Your task to perform on an android device: open app "Nova Launcher" Image 0: 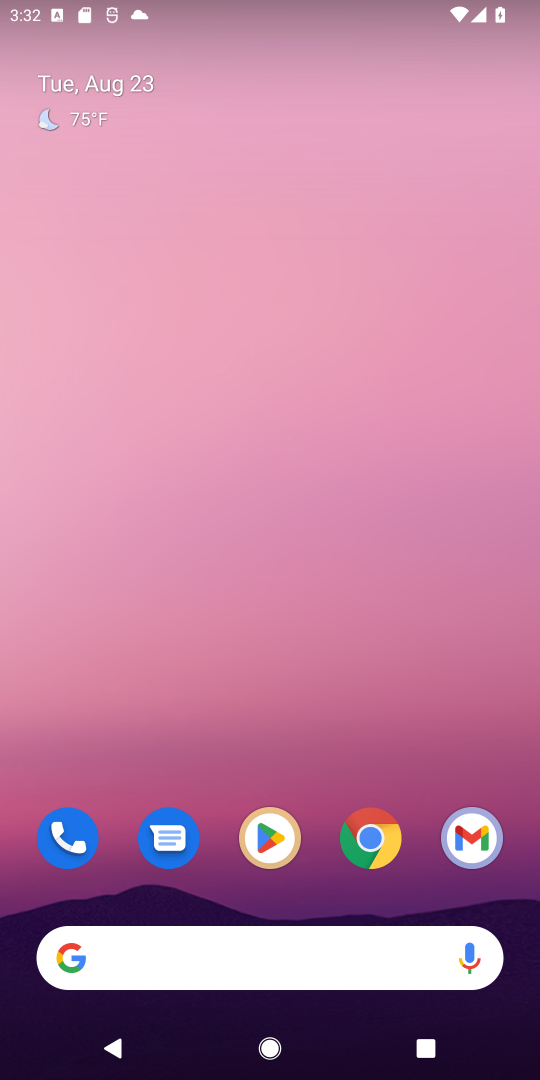
Step 0: click (274, 855)
Your task to perform on an android device: open app "Nova Launcher" Image 1: 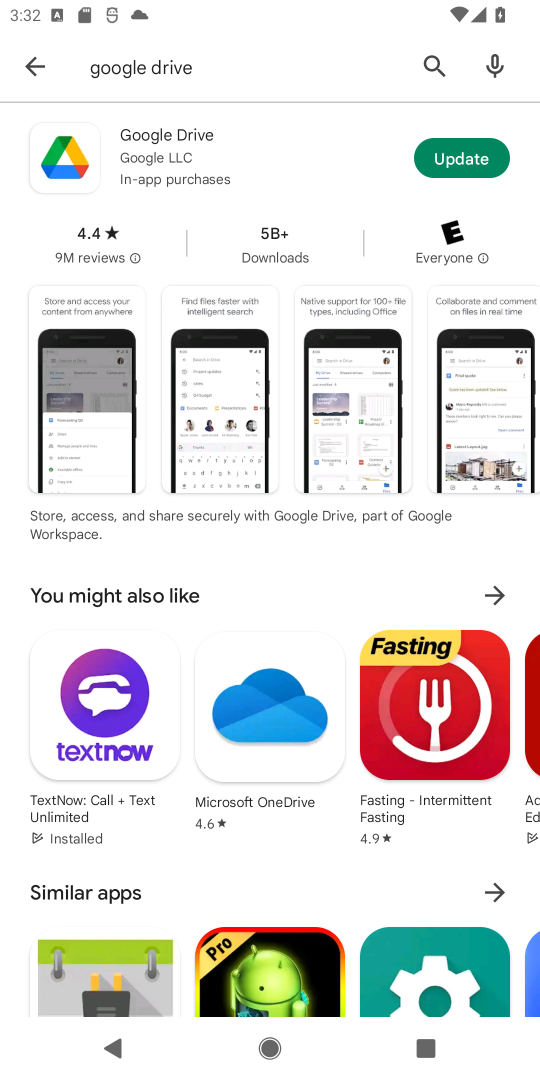
Step 1: click (33, 70)
Your task to perform on an android device: open app "Nova Launcher" Image 2: 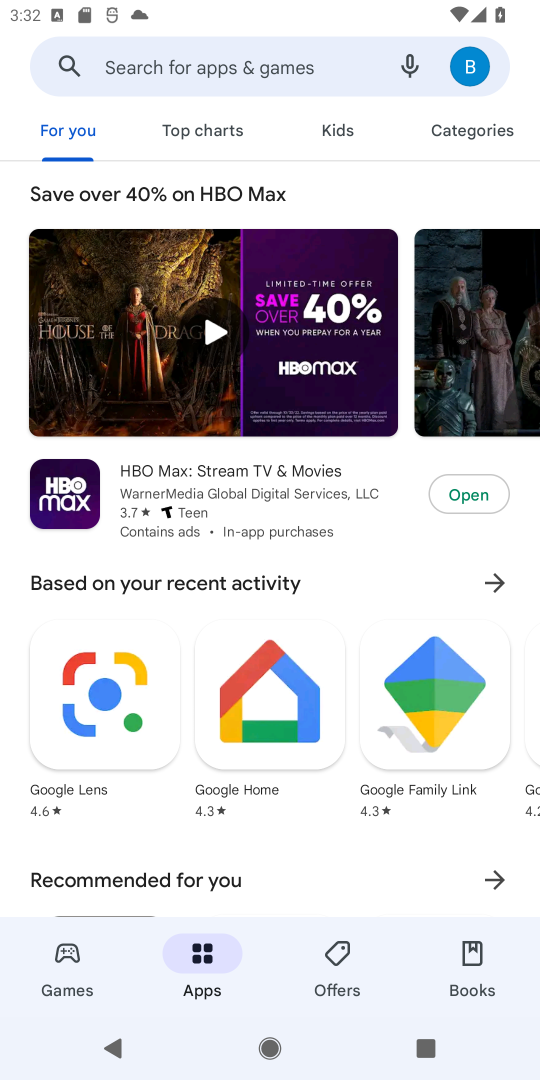
Step 2: click (183, 70)
Your task to perform on an android device: open app "Nova Launcher" Image 3: 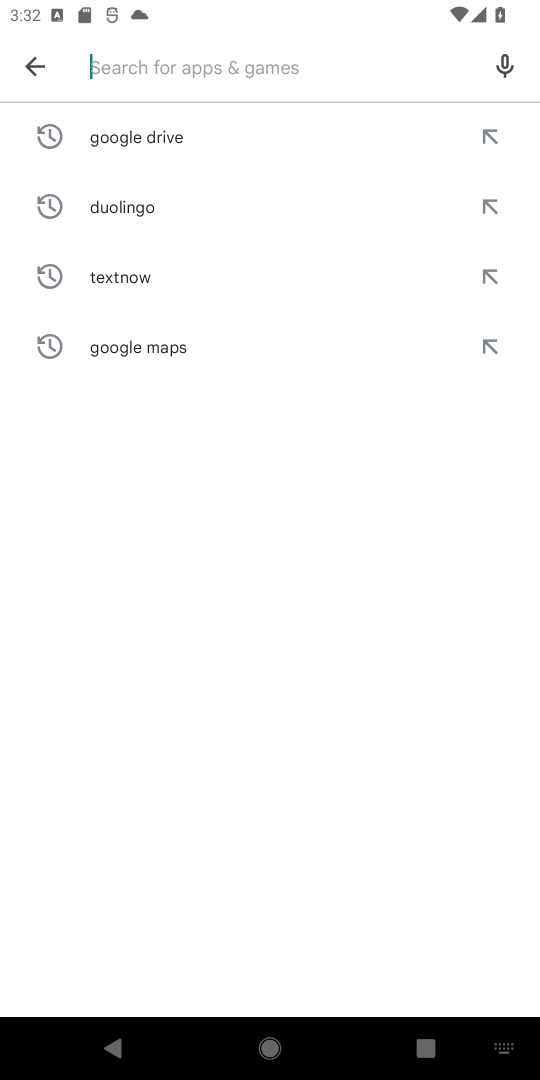
Step 3: type "Nova Launcher"
Your task to perform on an android device: open app "Nova Launcher" Image 4: 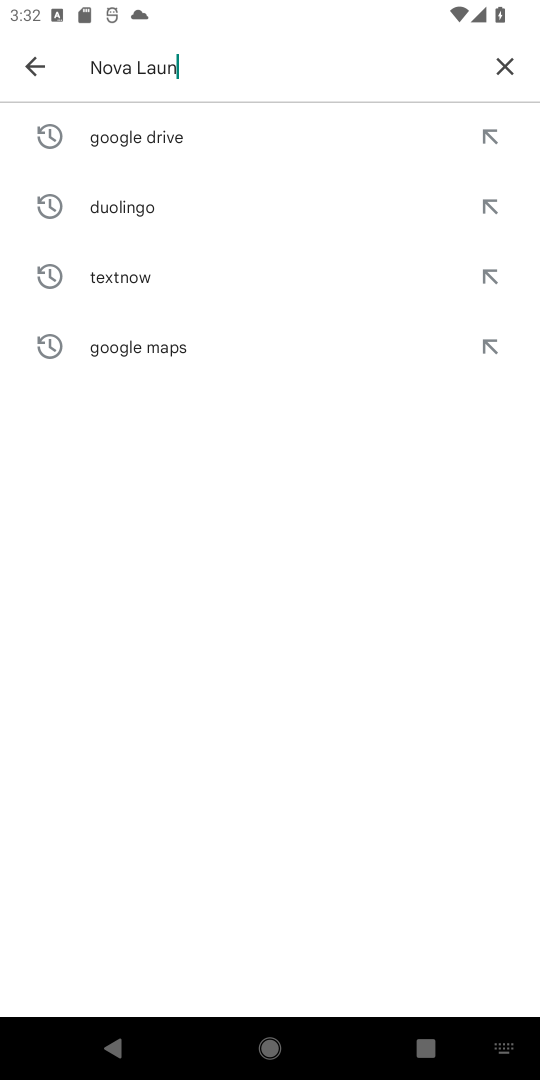
Step 4: type ""
Your task to perform on an android device: open app "Nova Launcher" Image 5: 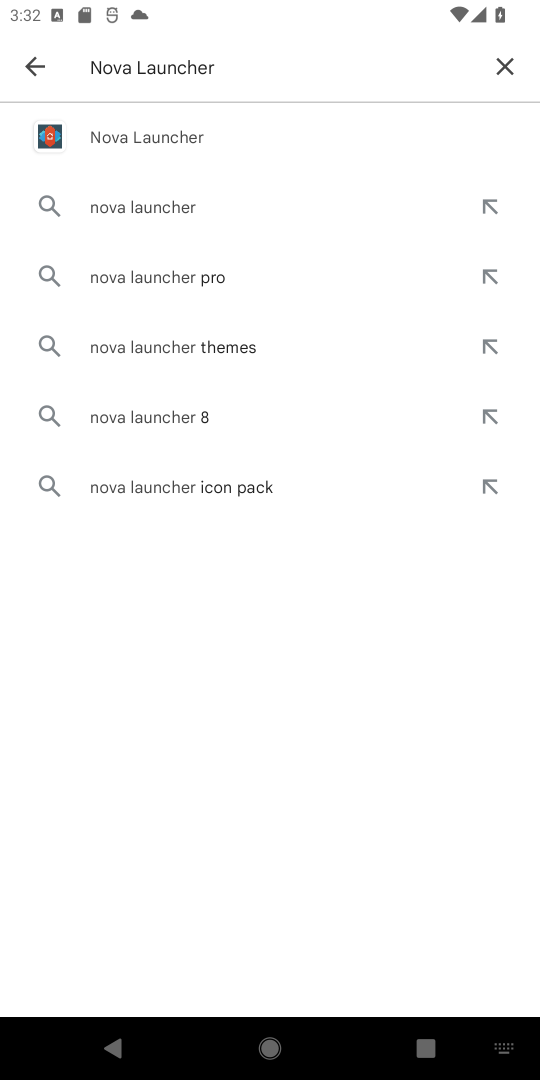
Step 5: click (152, 150)
Your task to perform on an android device: open app "Nova Launcher" Image 6: 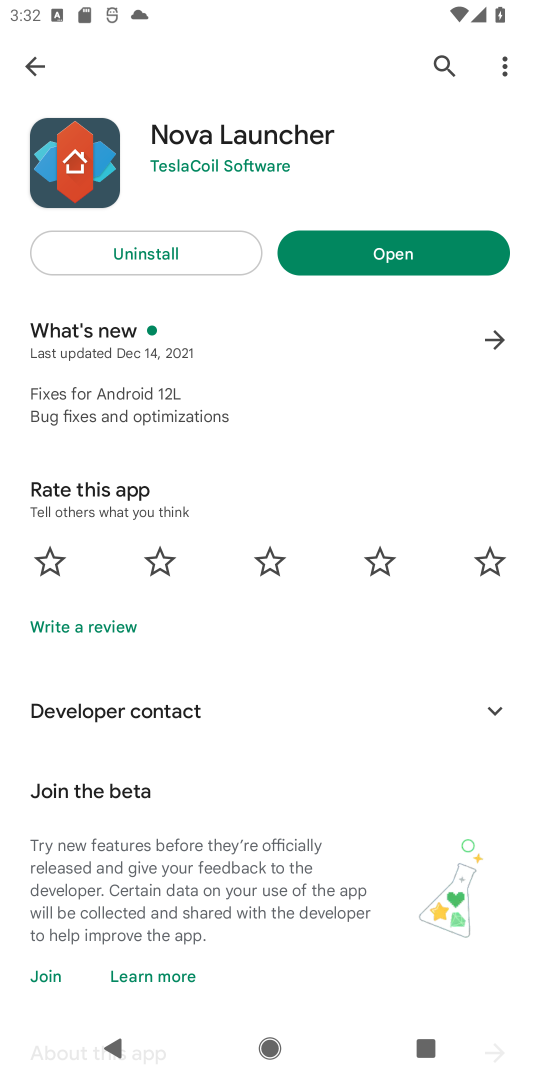
Step 6: click (323, 259)
Your task to perform on an android device: open app "Nova Launcher" Image 7: 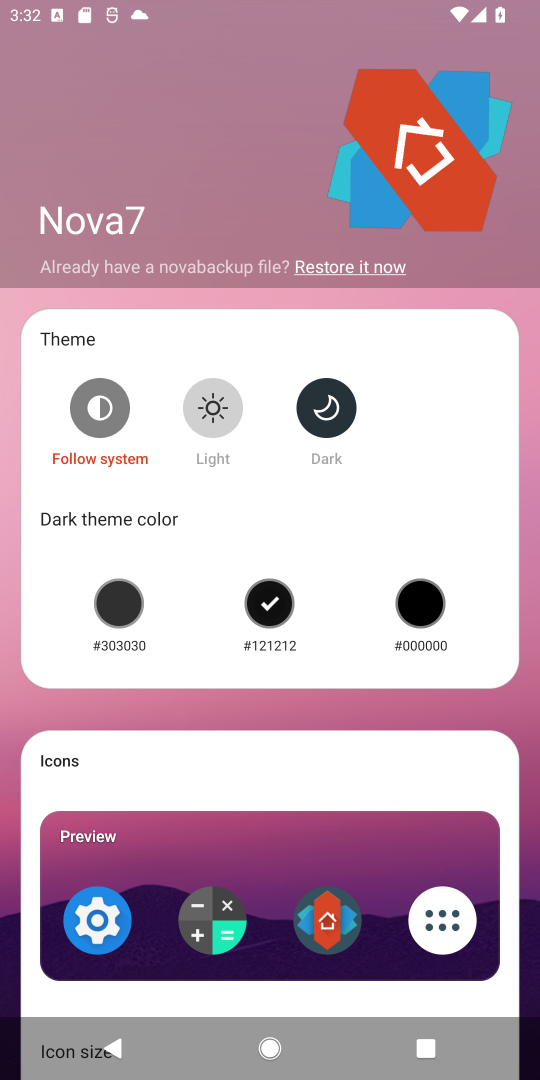
Step 7: press home button
Your task to perform on an android device: open app "Nova Launcher" Image 8: 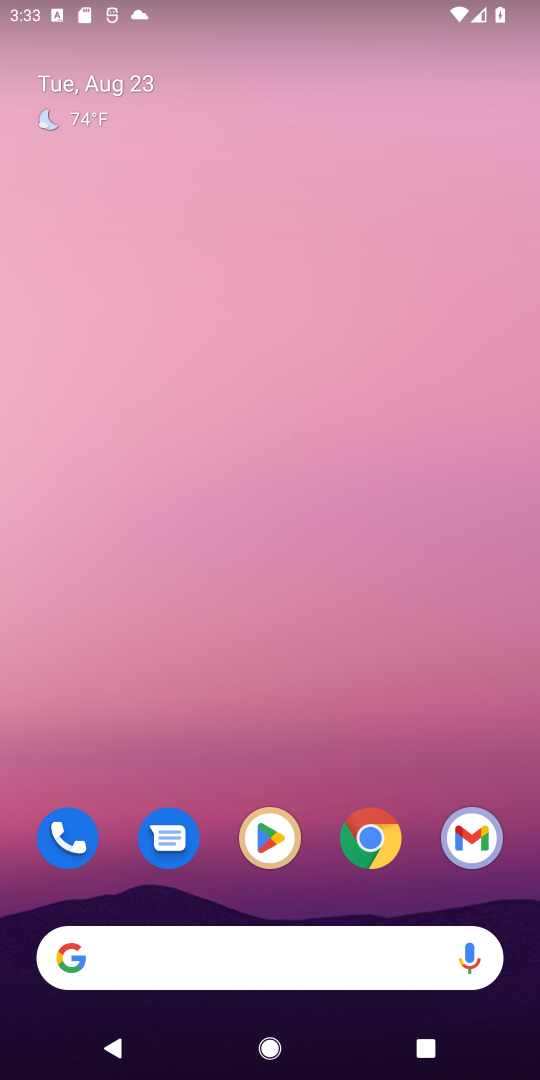
Step 8: click (266, 833)
Your task to perform on an android device: open app "Nova Launcher" Image 9: 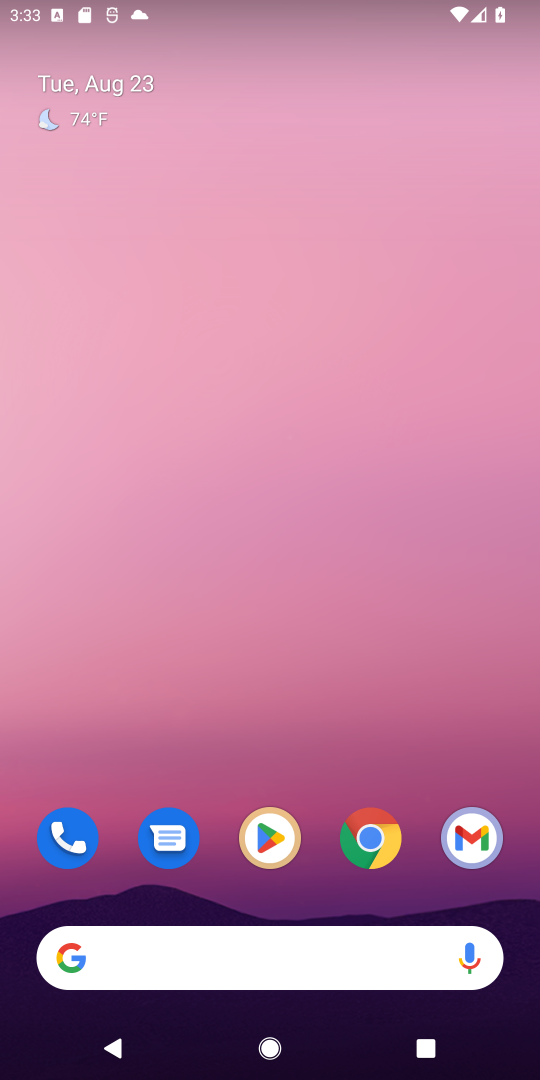
Step 9: click (276, 835)
Your task to perform on an android device: open app "Nova Launcher" Image 10: 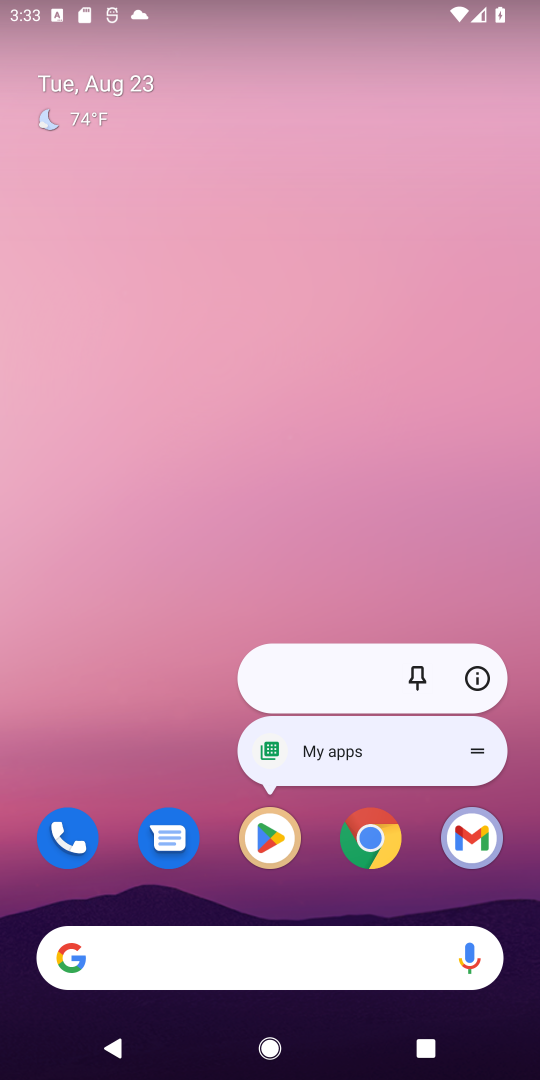
Step 10: click (268, 836)
Your task to perform on an android device: open app "Nova Launcher" Image 11: 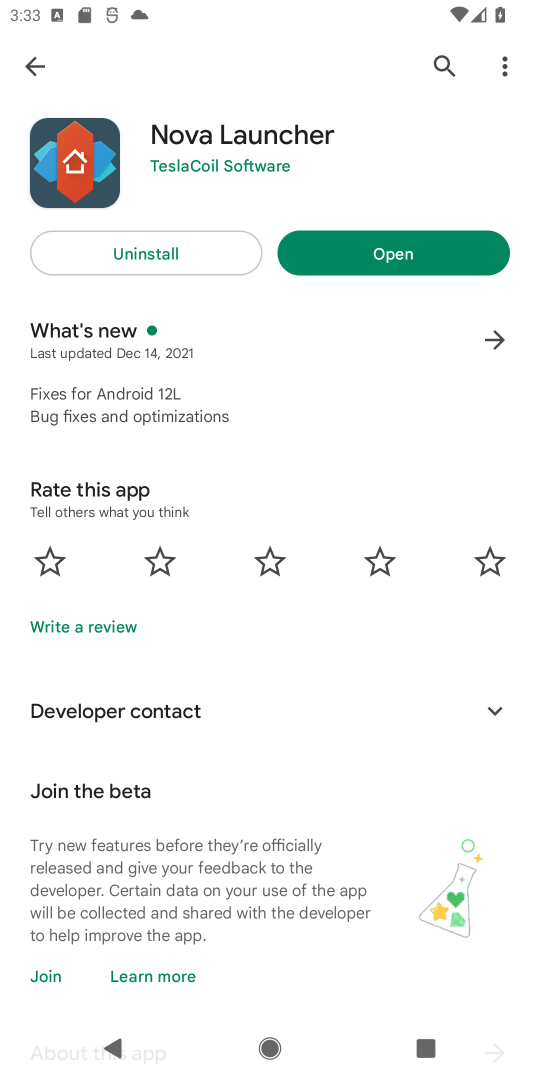
Step 11: click (15, 64)
Your task to perform on an android device: open app "Nova Launcher" Image 12: 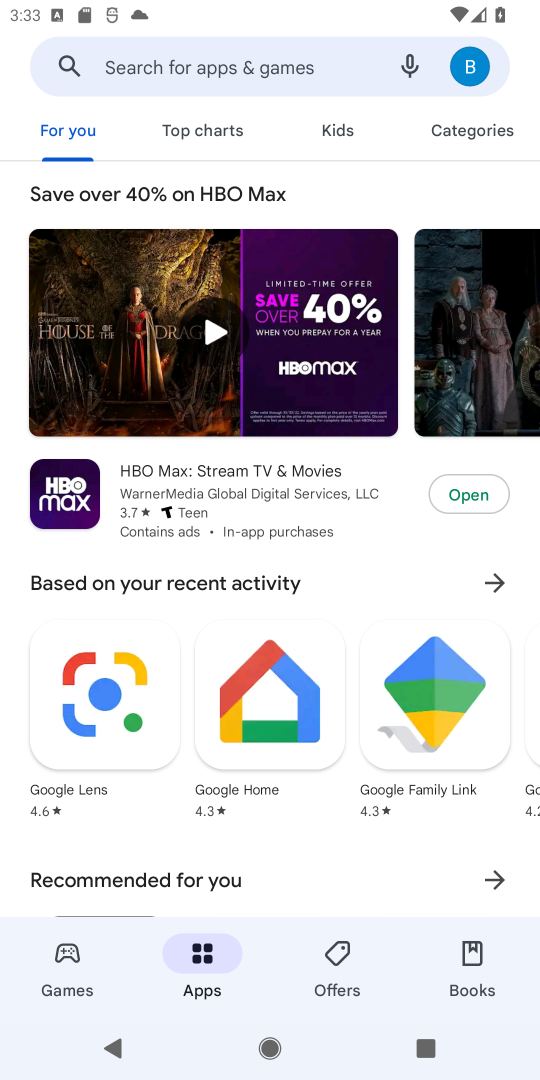
Step 12: click (207, 81)
Your task to perform on an android device: open app "Nova Launcher" Image 13: 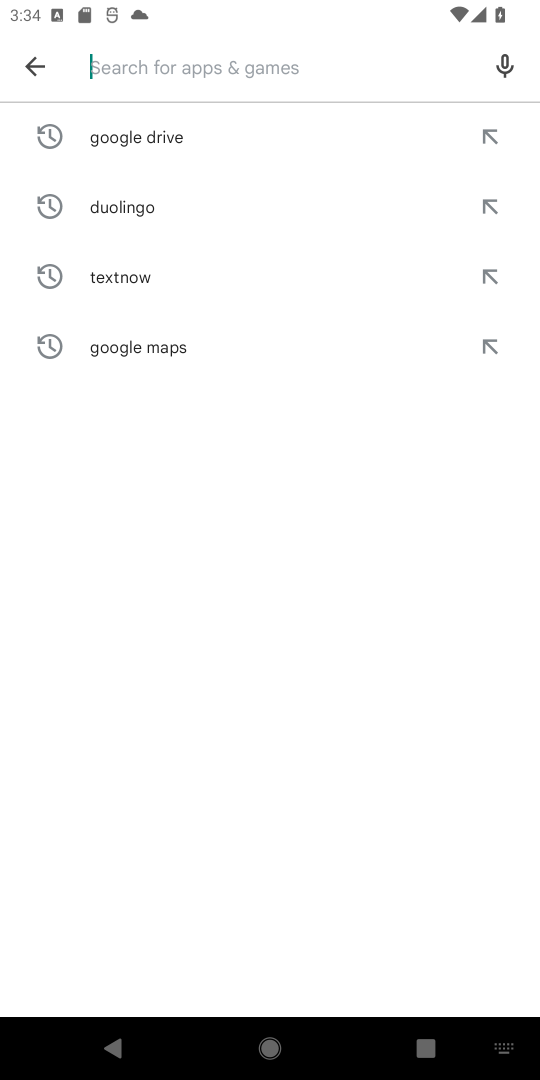
Step 13: type "Nova Launcher"
Your task to perform on an android device: open app "Nova Launcher" Image 14: 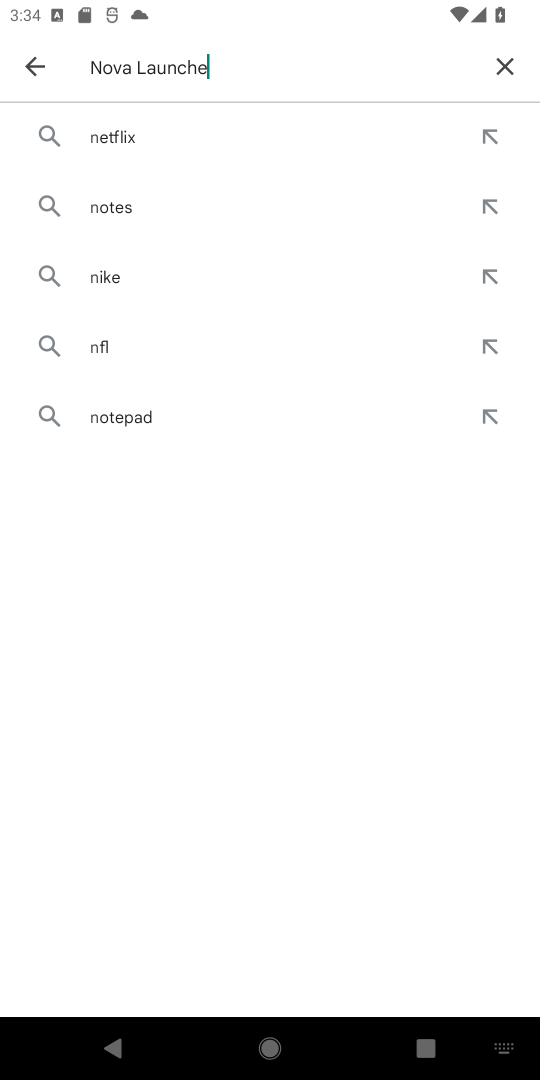
Step 14: type ""
Your task to perform on an android device: open app "Nova Launcher" Image 15: 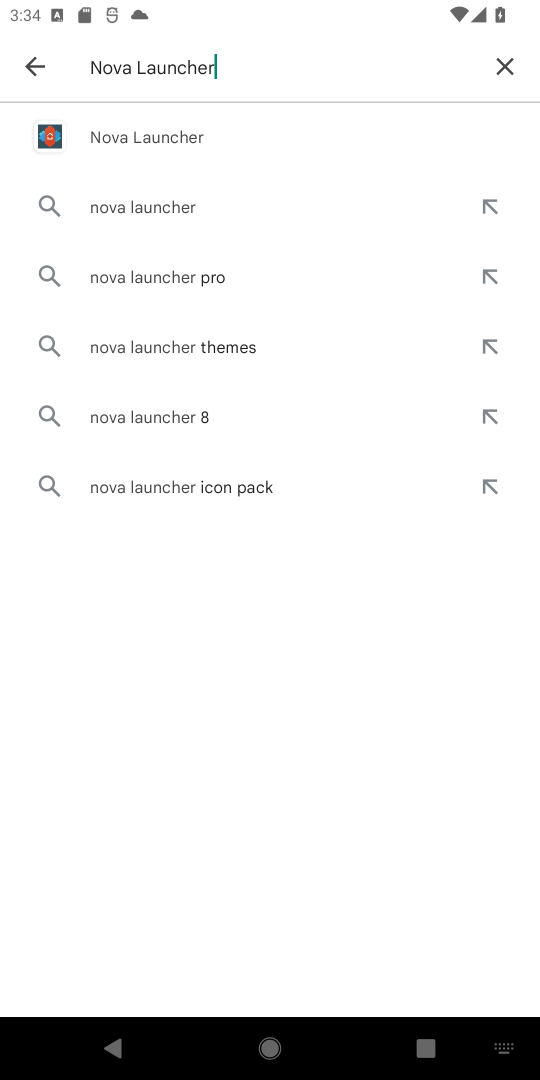
Step 15: click (123, 141)
Your task to perform on an android device: open app "Nova Launcher" Image 16: 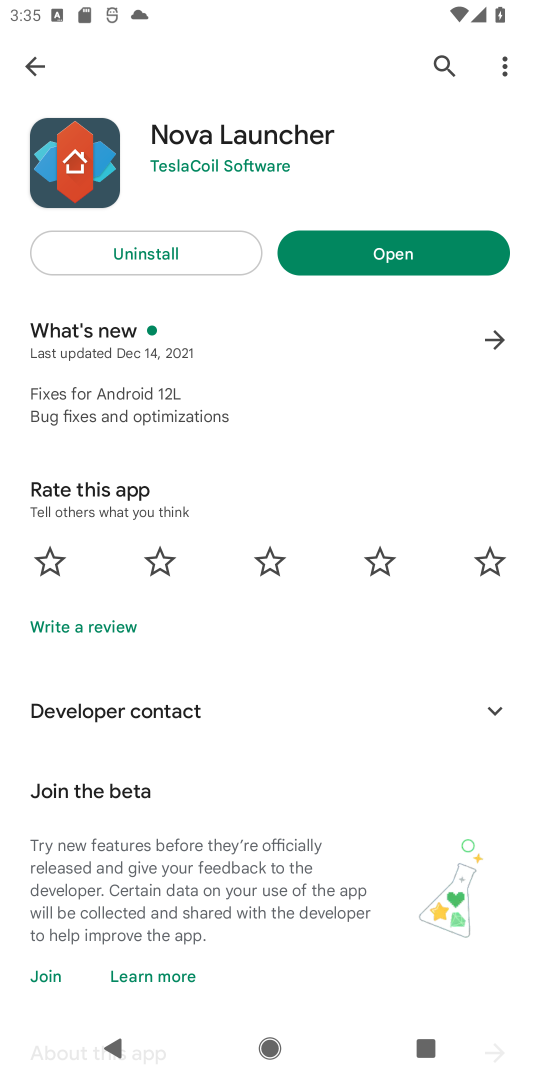
Step 16: click (428, 261)
Your task to perform on an android device: open app "Nova Launcher" Image 17: 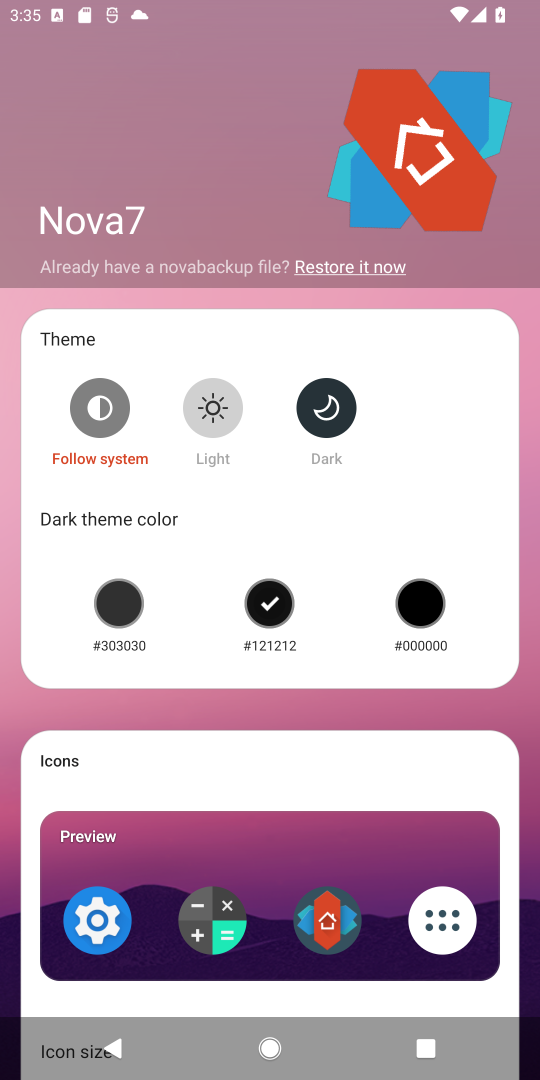
Step 17: task complete